Your task to perform on an android device: turn off data saver in the chrome app Image 0: 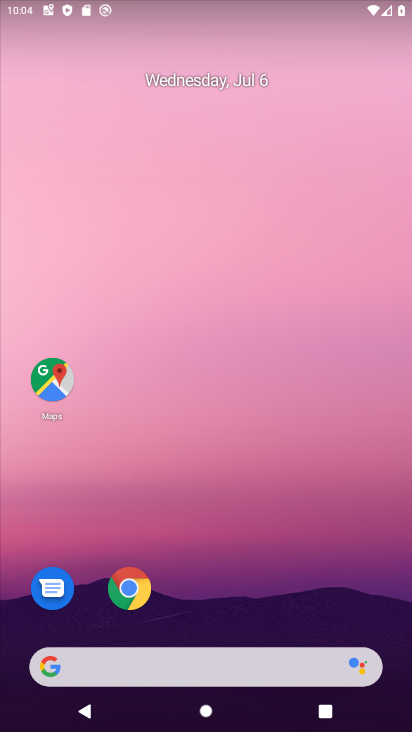
Step 0: drag from (241, 640) to (242, 235)
Your task to perform on an android device: turn off data saver in the chrome app Image 1: 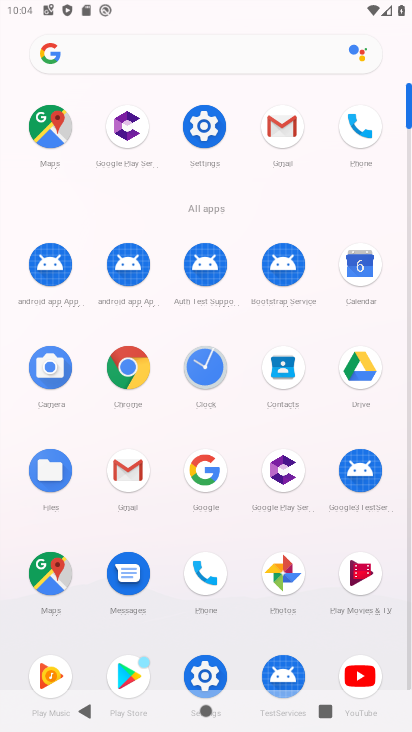
Step 1: click (125, 365)
Your task to perform on an android device: turn off data saver in the chrome app Image 2: 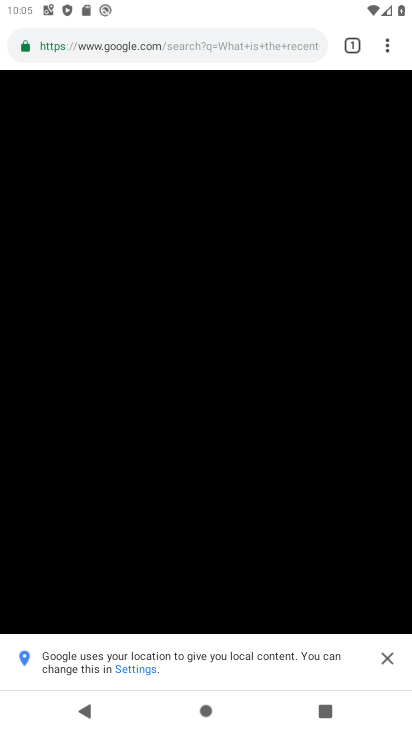
Step 2: click (387, 46)
Your task to perform on an android device: turn off data saver in the chrome app Image 3: 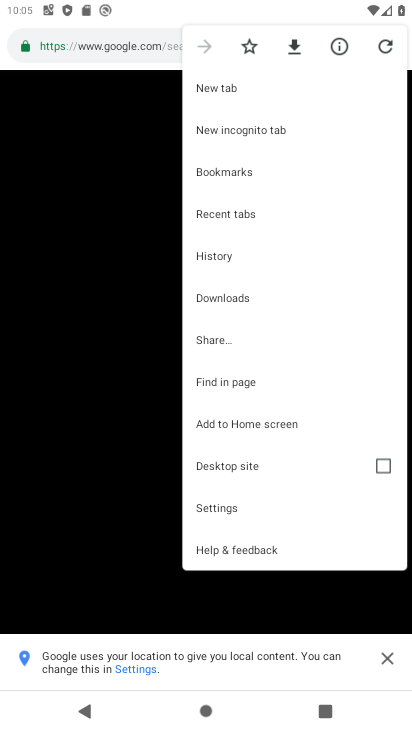
Step 3: click (235, 494)
Your task to perform on an android device: turn off data saver in the chrome app Image 4: 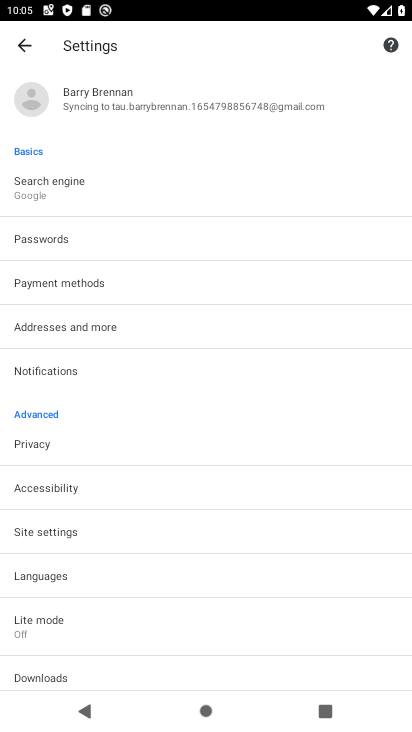
Step 4: drag from (175, 591) to (191, 301)
Your task to perform on an android device: turn off data saver in the chrome app Image 5: 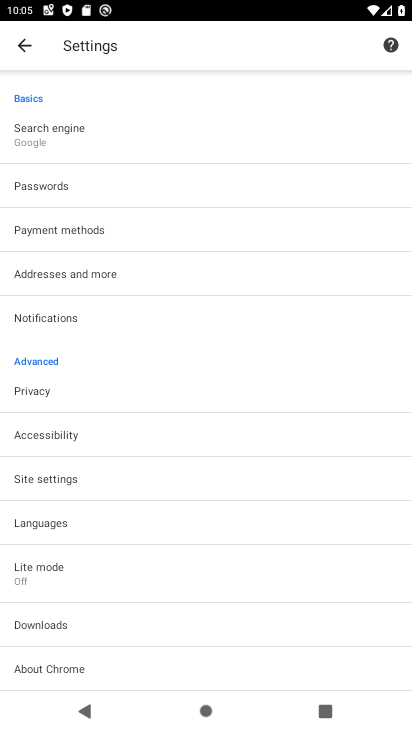
Step 5: click (93, 566)
Your task to perform on an android device: turn off data saver in the chrome app Image 6: 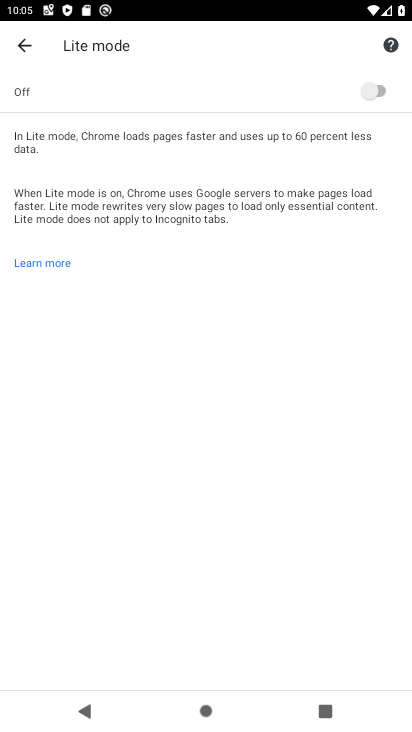
Step 6: task complete